Your task to perform on an android device: Go to eBay Image 0: 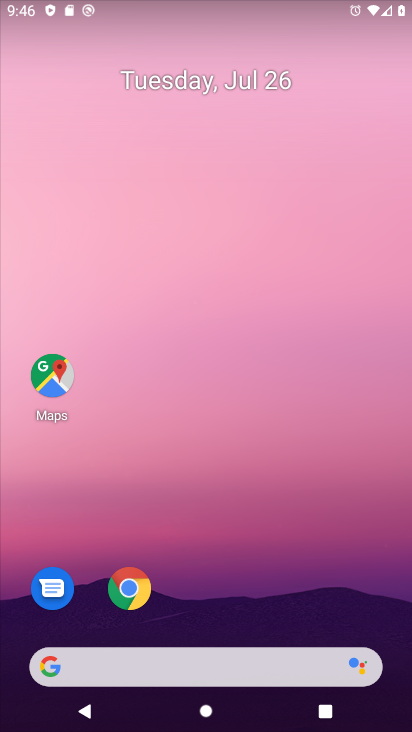
Step 0: click (130, 584)
Your task to perform on an android device: Go to eBay Image 1: 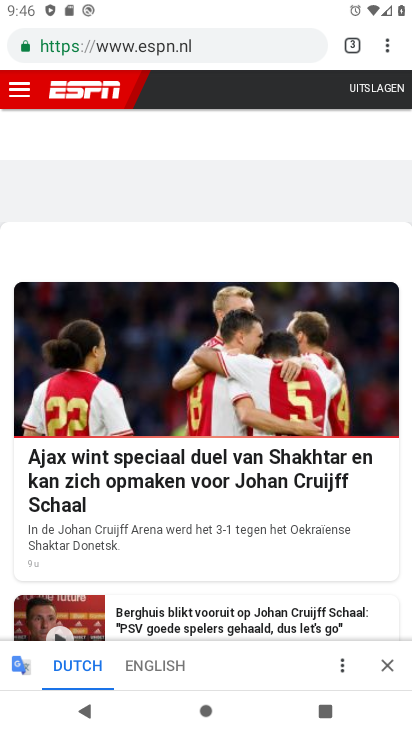
Step 1: click (350, 43)
Your task to perform on an android device: Go to eBay Image 2: 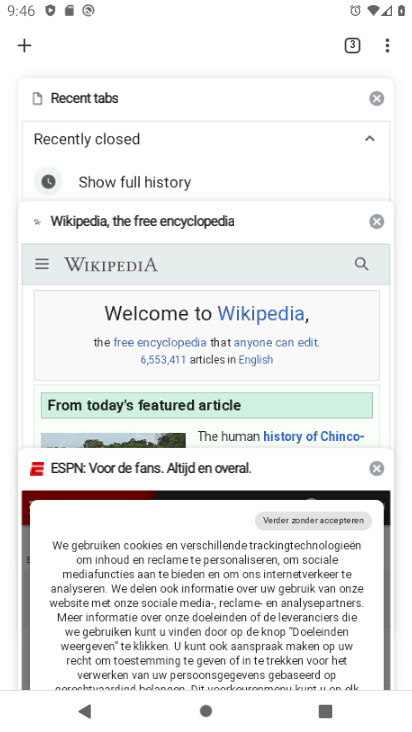
Step 2: click (17, 36)
Your task to perform on an android device: Go to eBay Image 3: 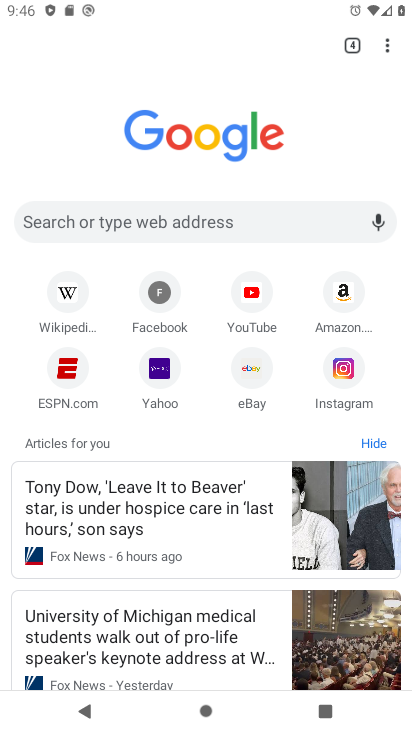
Step 3: click (246, 363)
Your task to perform on an android device: Go to eBay Image 4: 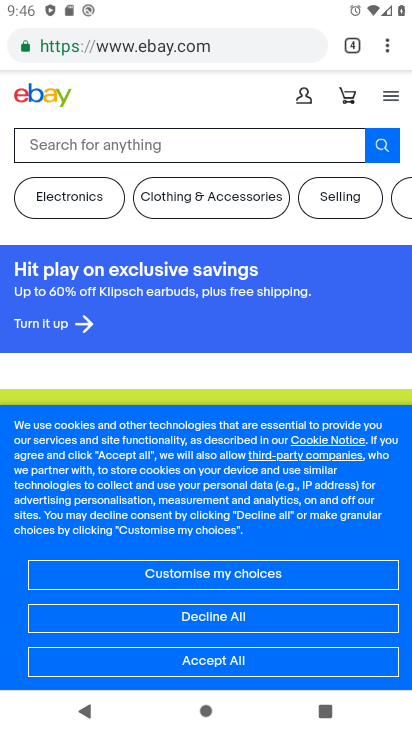
Step 4: task complete